Your task to perform on an android device: Open display settings Image 0: 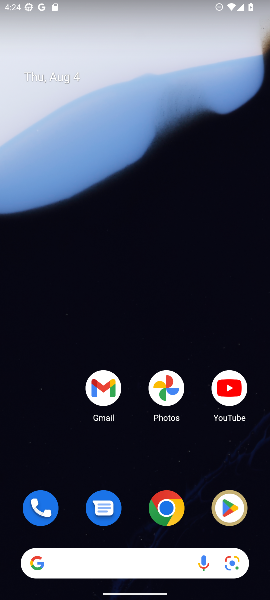
Step 0: drag from (134, 525) to (173, 159)
Your task to perform on an android device: Open display settings Image 1: 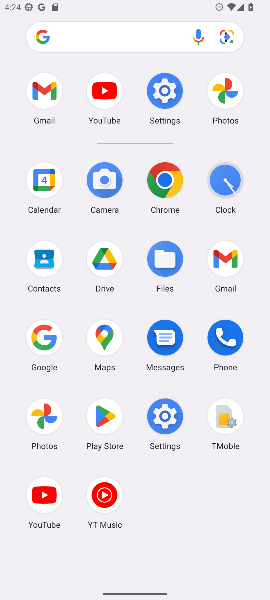
Step 1: click (161, 420)
Your task to perform on an android device: Open display settings Image 2: 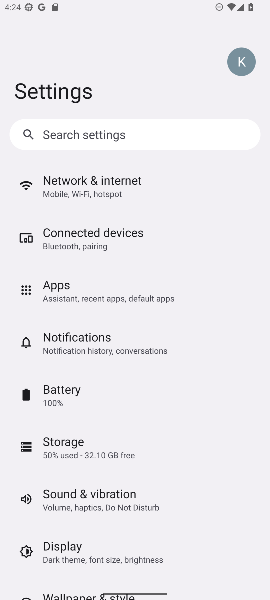
Step 2: drag from (105, 490) to (159, 146)
Your task to perform on an android device: Open display settings Image 3: 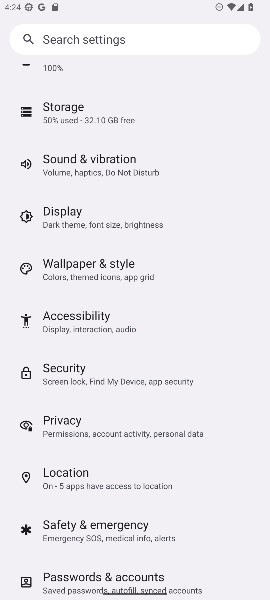
Step 3: click (90, 227)
Your task to perform on an android device: Open display settings Image 4: 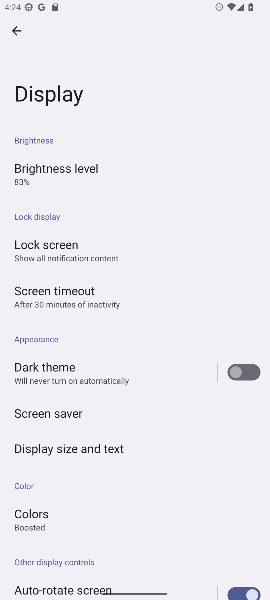
Step 4: drag from (116, 509) to (167, 192)
Your task to perform on an android device: Open display settings Image 5: 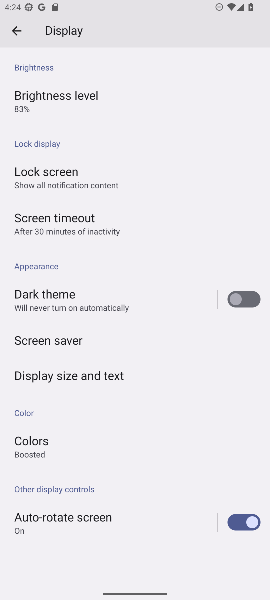
Step 5: click (144, 250)
Your task to perform on an android device: Open display settings Image 6: 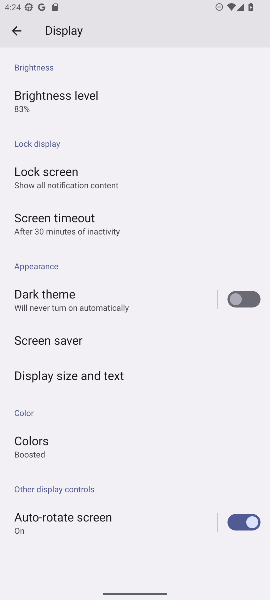
Step 6: task complete